Your task to perform on an android device: Toggle the flashlight Image 0: 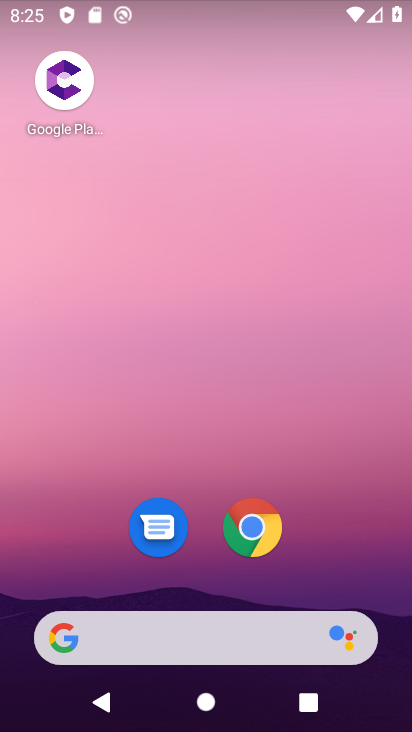
Step 0: drag from (343, 523) to (335, 130)
Your task to perform on an android device: Toggle the flashlight Image 1: 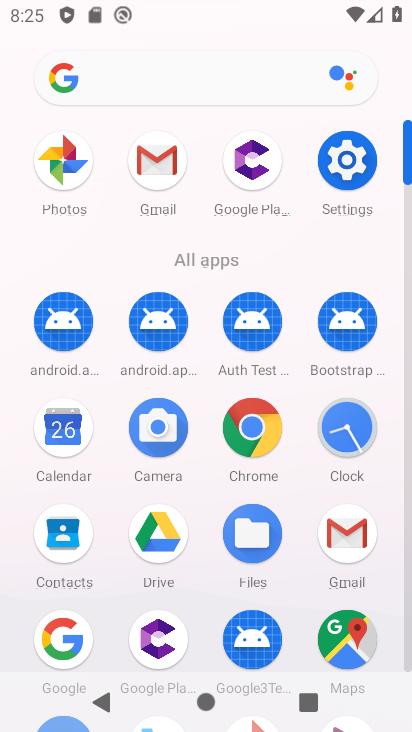
Step 1: click (338, 160)
Your task to perform on an android device: Toggle the flashlight Image 2: 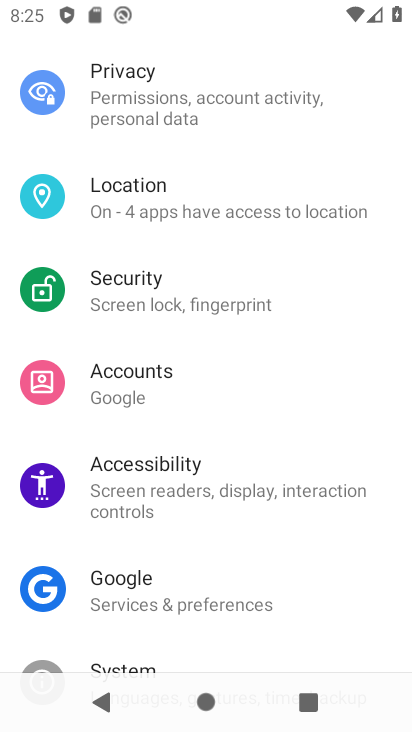
Step 2: drag from (287, 264) to (262, 641)
Your task to perform on an android device: Toggle the flashlight Image 3: 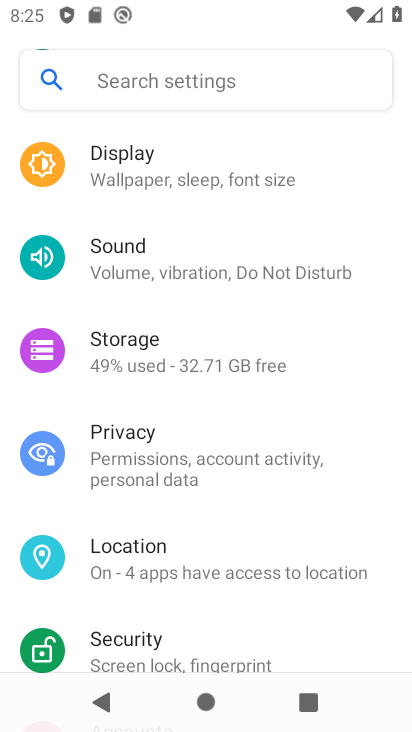
Step 3: click (223, 166)
Your task to perform on an android device: Toggle the flashlight Image 4: 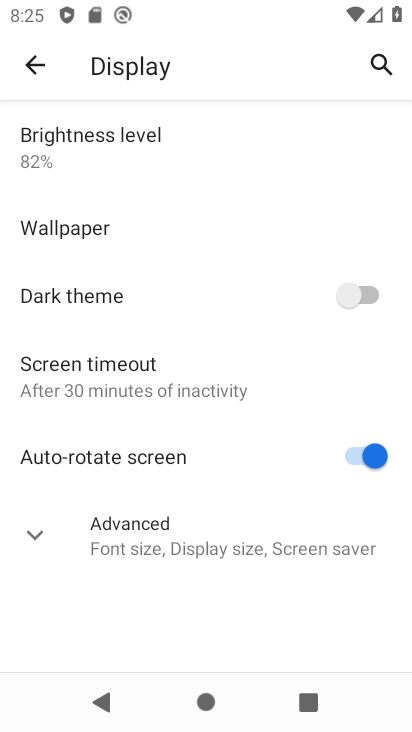
Step 4: click (227, 388)
Your task to perform on an android device: Toggle the flashlight Image 5: 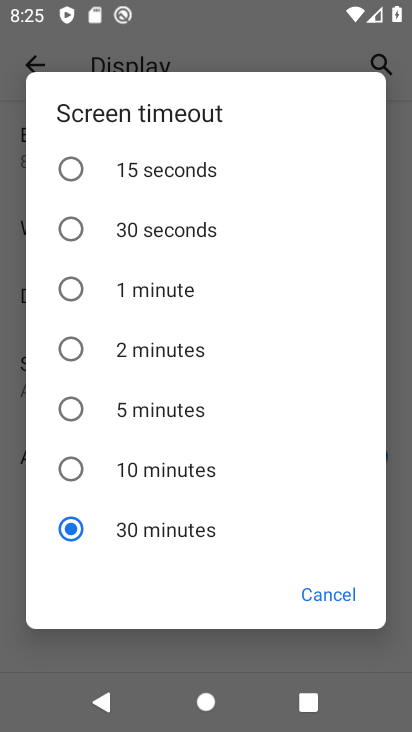
Step 5: task complete